Your task to perform on an android device: open sync settings in chrome Image 0: 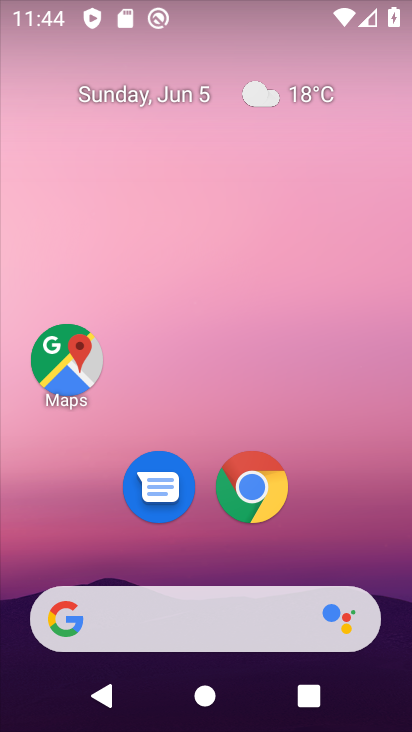
Step 0: drag from (331, 539) to (345, 190)
Your task to perform on an android device: open sync settings in chrome Image 1: 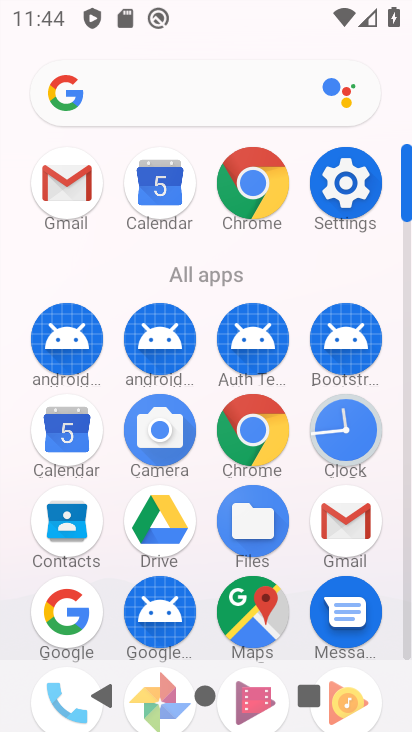
Step 1: click (242, 451)
Your task to perform on an android device: open sync settings in chrome Image 2: 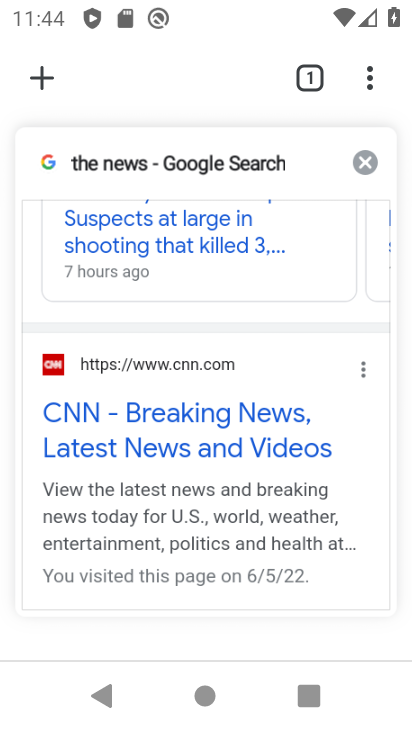
Step 2: drag from (365, 67) to (58, 310)
Your task to perform on an android device: open sync settings in chrome Image 3: 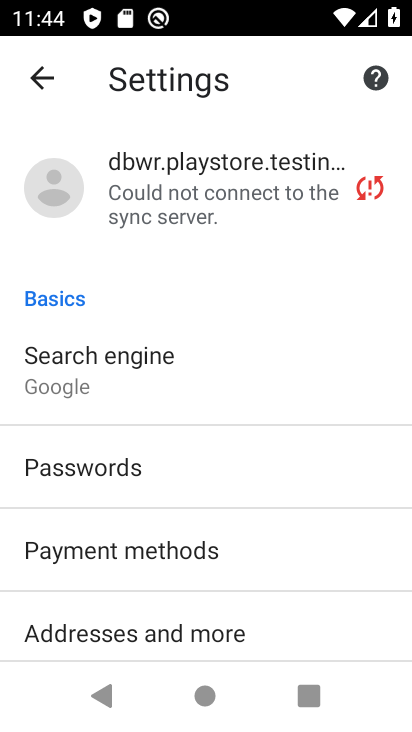
Step 3: drag from (292, 635) to (357, 323)
Your task to perform on an android device: open sync settings in chrome Image 4: 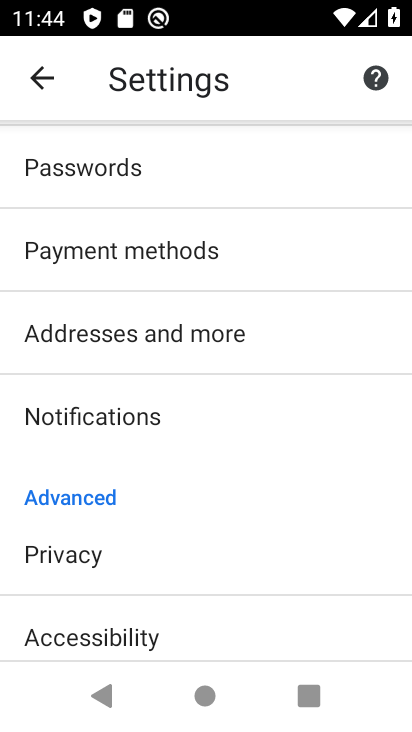
Step 4: drag from (288, 622) to (308, 280)
Your task to perform on an android device: open sync settings in chrome Image 5: 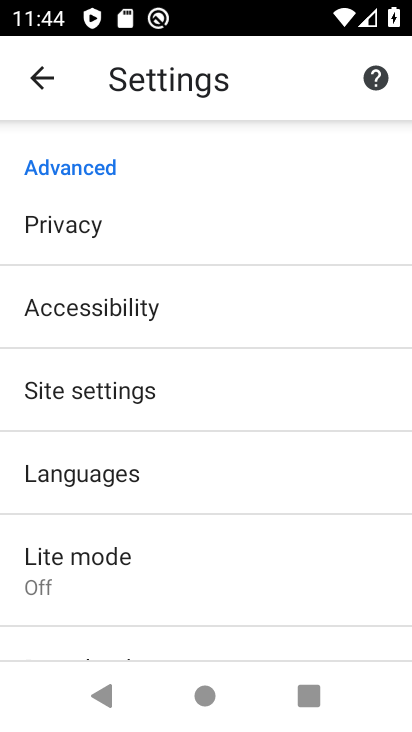
Step 5: click (175, 406)
Your task to perform on an android device: open sync settings in chrome Image 6: 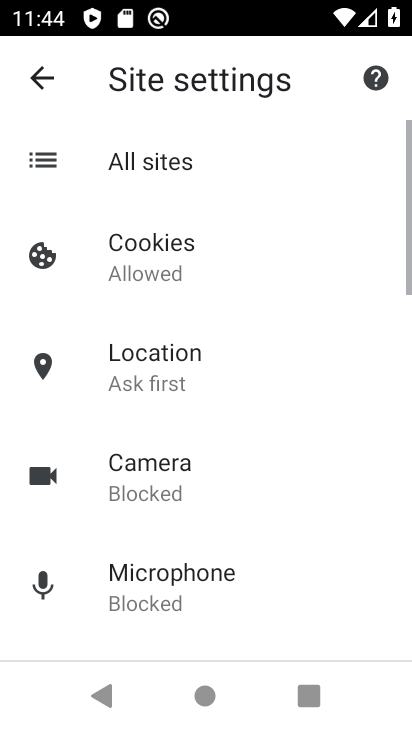
Step 6: drag from (264, 544) to (271, 212)
Your task to perform on an android device: open sync settings in chrome Image 7: 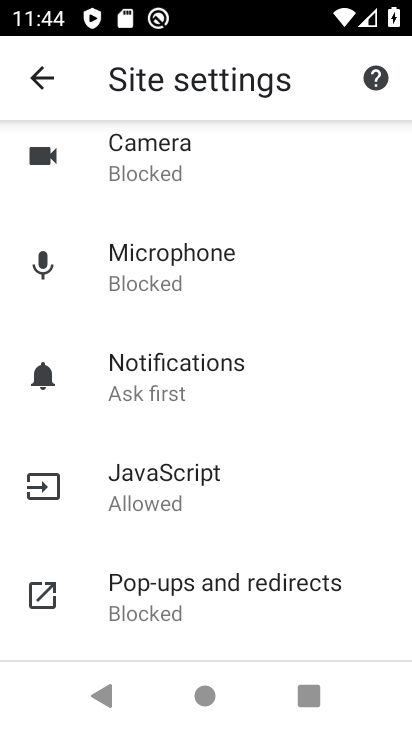
Step 7: drag from (278, 603) to (317, 359)
Your task to perform on an android device: open sync settings in chrome Image 8: 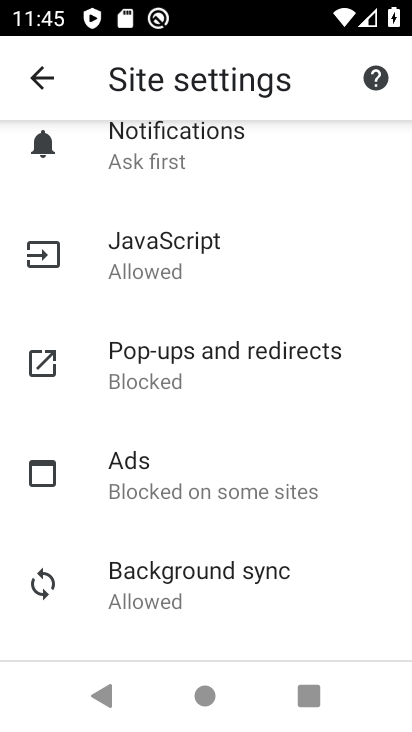
Step 8: click (214, 580)
Your task to perform on an android device: open sync settings in chrome Image 9: 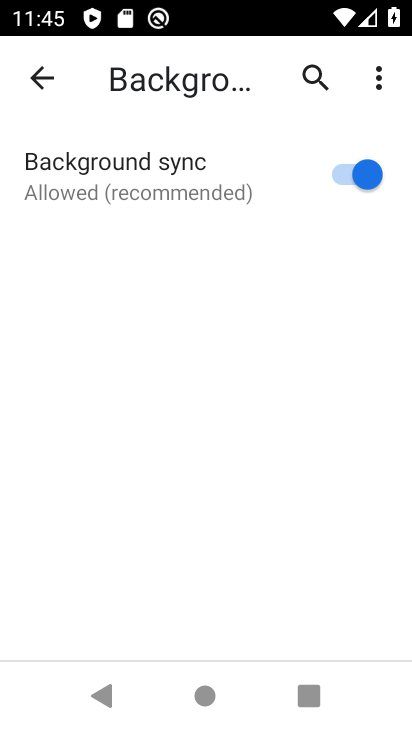
Step 9: task complete